Your task to perform on an android device: make emails show in primary in the gmail app Image 0: 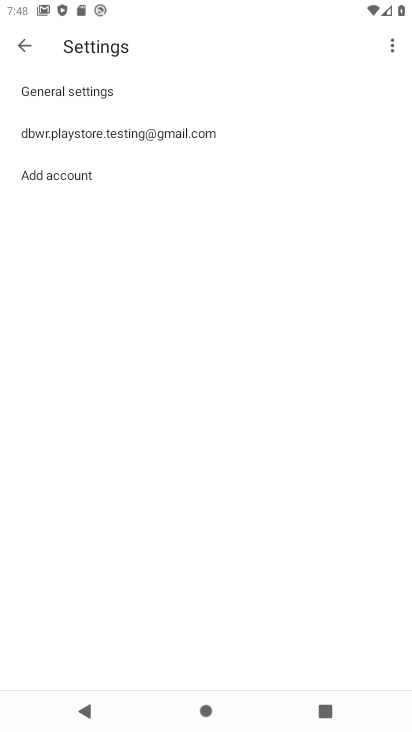
Step 0: press home button
Your task to perform on an android device: make emails show in primary in the gmail app Image 1: 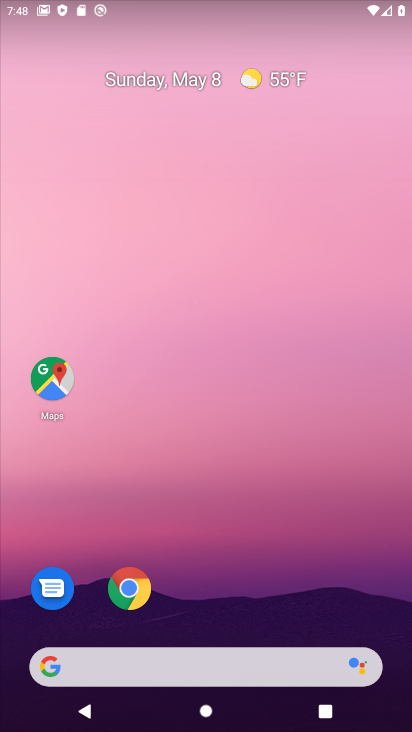
Step 1: drag from (341, 600) to (287, 46)
Your task to perform on an android device: make emails show in primary in the gmail app Image 2: 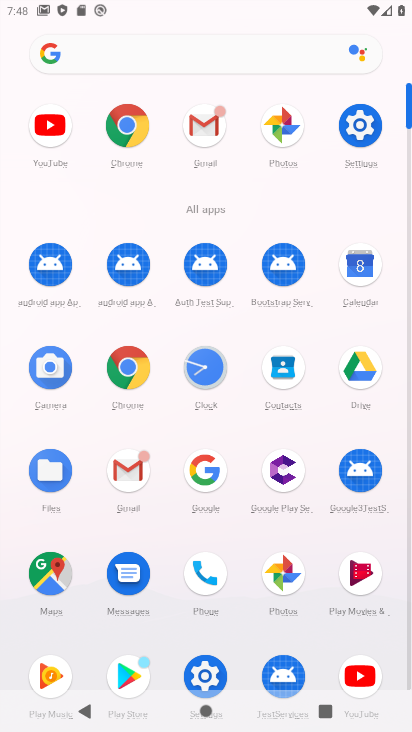
Step 2: click (124, 469)
Your task to perform on an android device: make emails show in primary in the gmail app Image 3: 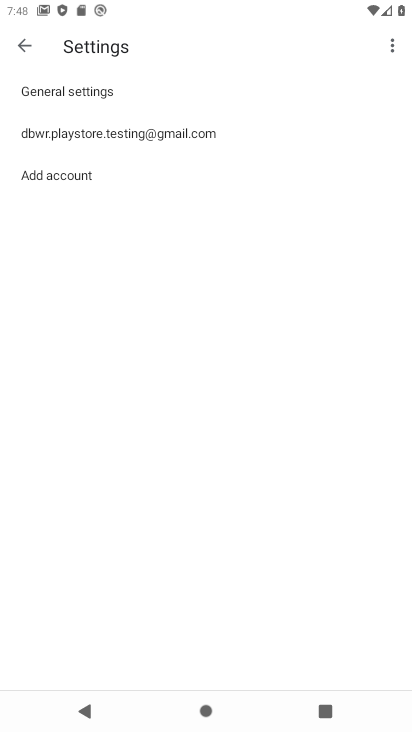
Step 3: press back button
Your task to perform on an android device: make emails show in primary in the gmail app Image 4: 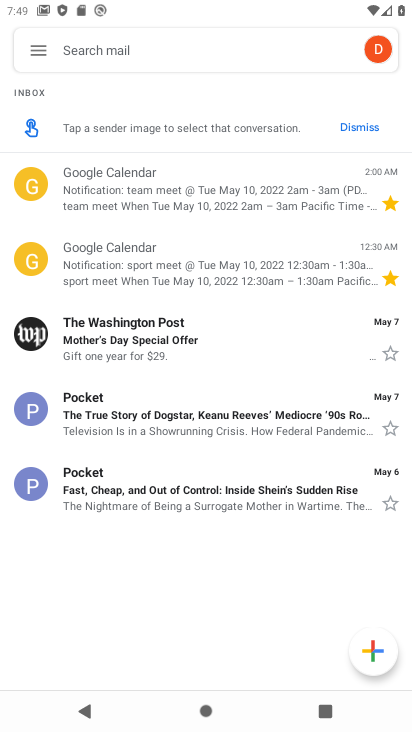
Step 4: click (203, 176)
Your task to perform on an android device: make emails show in primary in the gmail app Image 5: 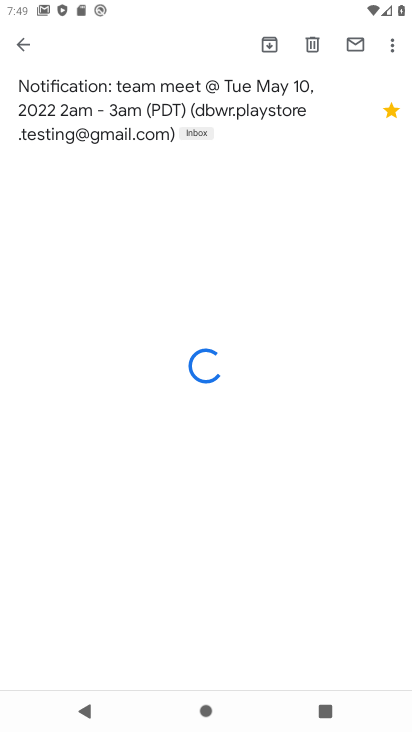
Step 5: click (390, 41)
Your task to perform on an android device: make emails show in primary in the gmail app Image 6: 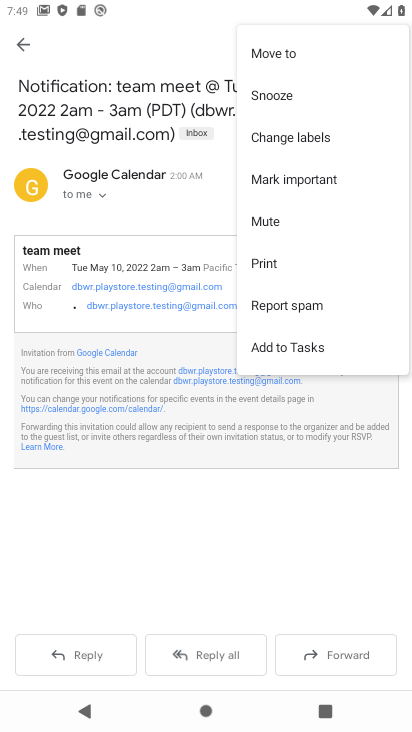
Step 6: click (275, 54)
Your task to perform on an android device: make emails show in primary in the gmail app Image 7: 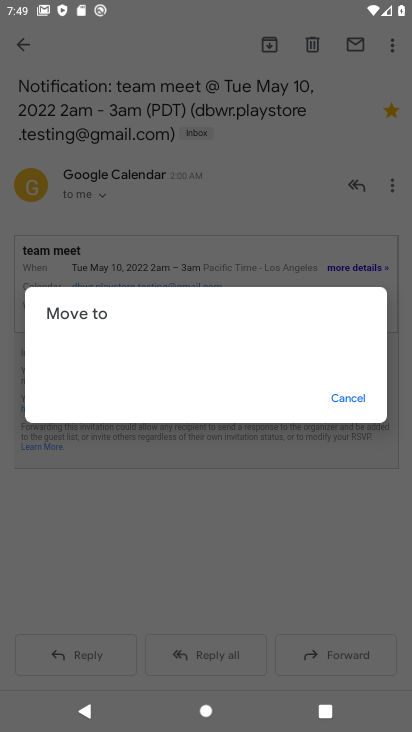
Step 7: task complete